Your task to perform on an android device: Do I have any events today? Image 0: 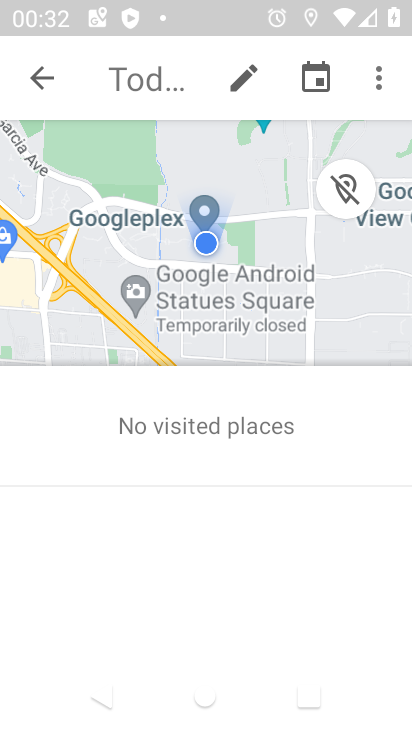
Step 0: press home button
Your task to perform on an android device: Do I have any events today? Image 1: 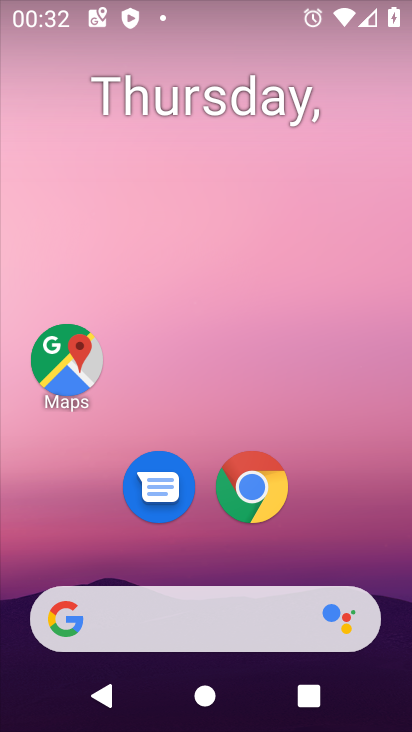
Step 1: drag from (344, 557) to (218, 3)
Your task to perform on an android device: Do I have any events today? Image 2: 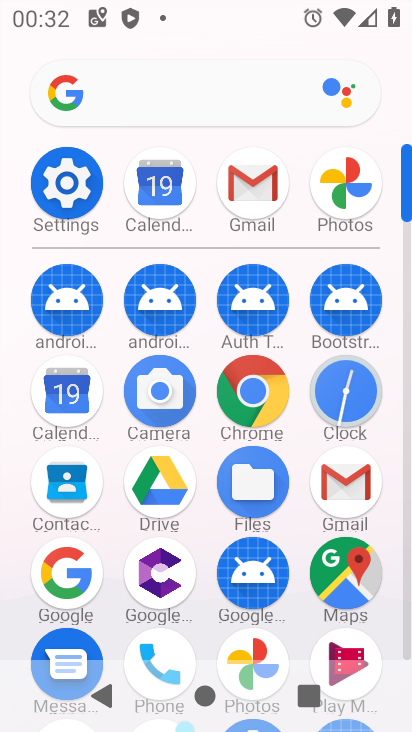
Step 2: click (155, 189)
Your task to perform on an android device: Do I have any events today? Image 3: 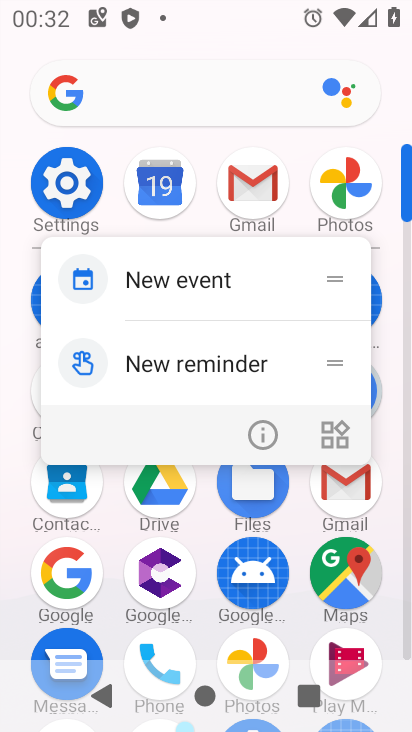
Step 3: click (155, 189)
Your task to perform on an android device: Do I have any events today? Image 4: 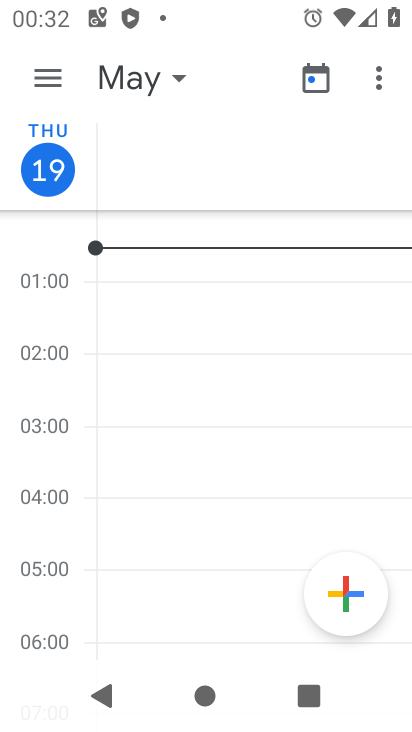
Step 4: click (49, 82)
Your task to perform on an android device: Do I have any events today? Image 5: 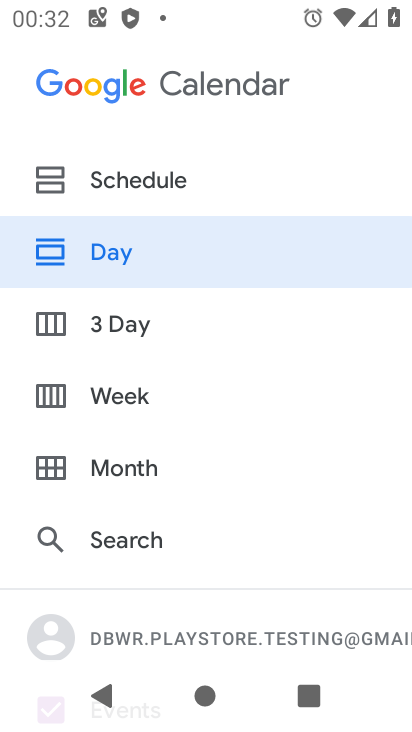
Step 5: click (106, 254)
Your task to perform on an android device: Do I have any events today? Image 6: 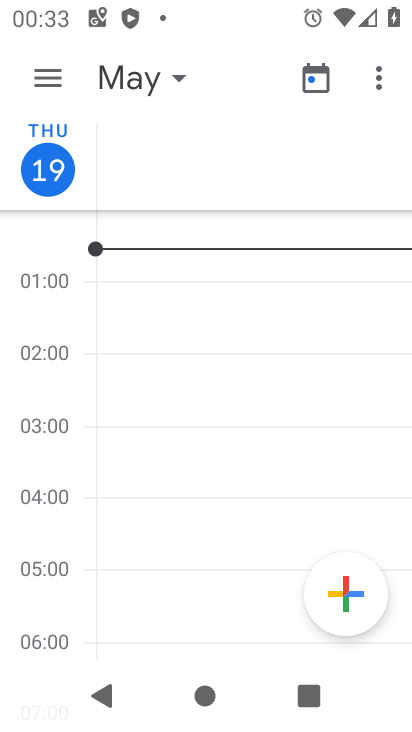
Step 6: drag from (190, 365) to (186, 155)
Your task to perform on an android device: Do I have any events today? Image 7: 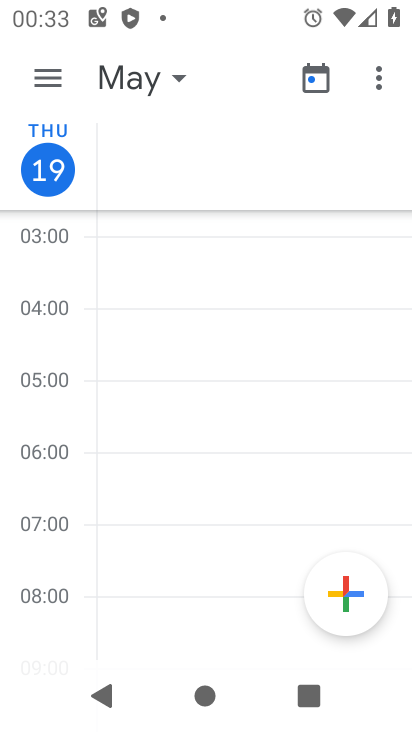
Step 7: drag from (149, 230) to (118, 473)
Your task to perform on an android device: Do I have any events today? Image 8: 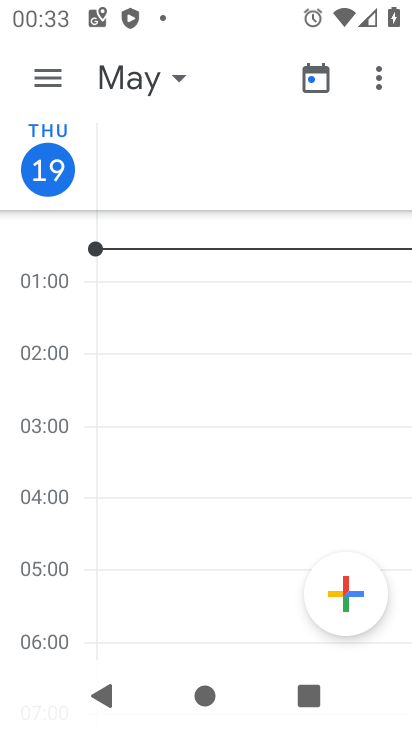
Step 8: click (44, 83)
Your task to perform on an android device: Do I have any events today? Image 9: 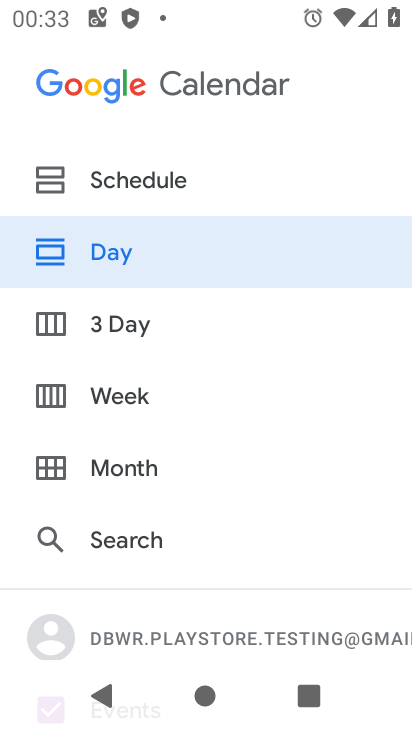
Step 9: click (89, 174)
Your task to perform on an android device: Do I have any events today? Image 10: 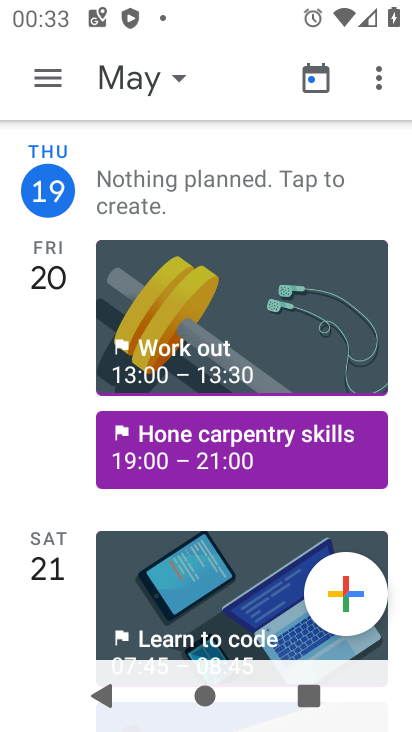
Step 10: click (139, 186)
Your task to perform on an android device: Do I have any events today? Image 11: 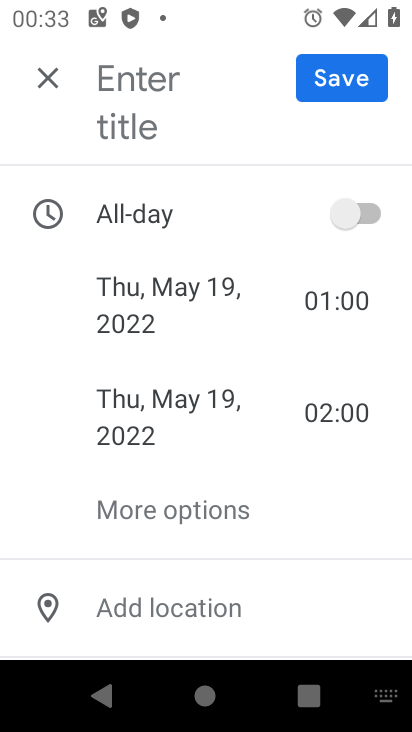
Step 11: task complete